Your task to perform on an android device: Go to wifi settings Image 0: 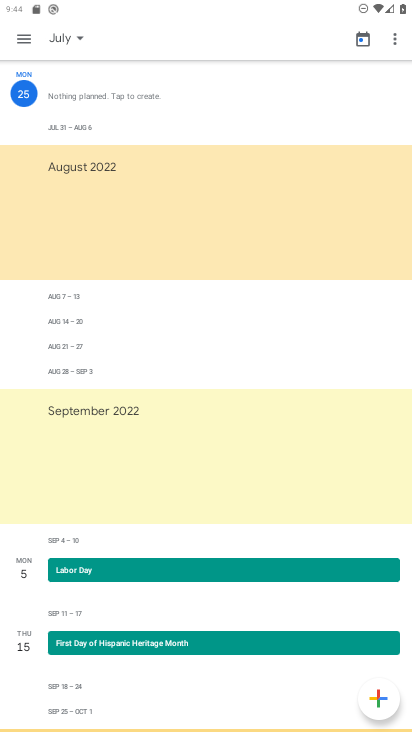
Step 0: press back button
Your task to perform on an android device: Go to wifi settings Image 1: 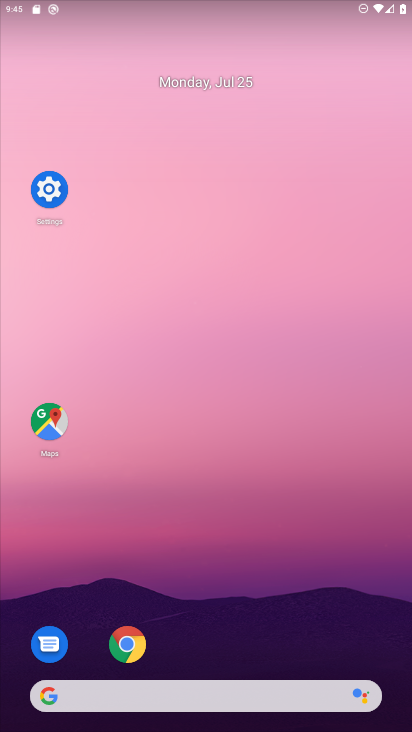
Step 1: click (52, 183)
Your task to perform on an android device: Go to wifi settings Image 2: 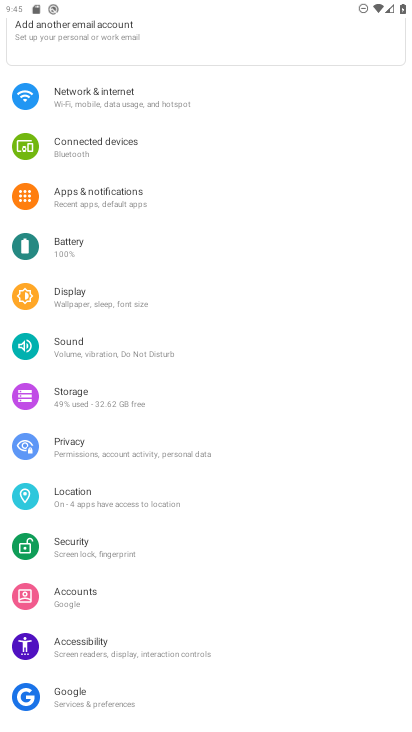
Step 2: click (140, 197)
Your task to perform on an android device: Go to wifi settings Image 3: 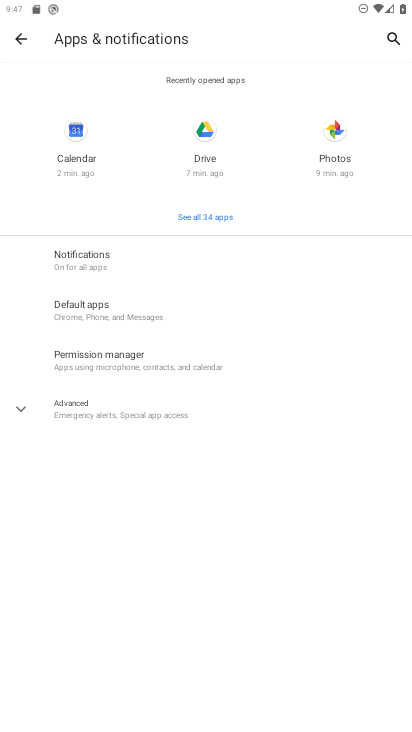
Step 3: press back button
Your task to perform on an android device: Go to wifi settings Image 4: 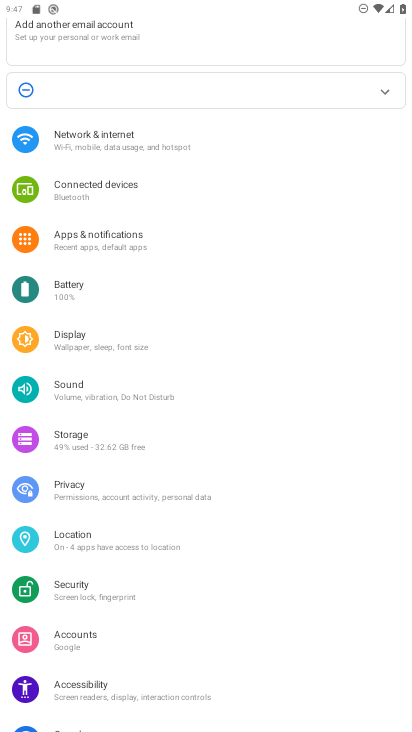
Step 4: click (125, 155)
Your task to perform on an android device: Go to wifi settings Image 5: 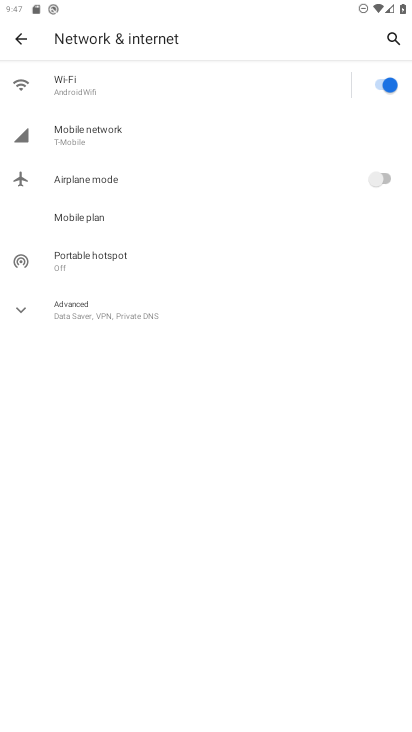
Step 5: click (103, 83)
Your task to perform on an android device: Go to wifi settings Image 6: 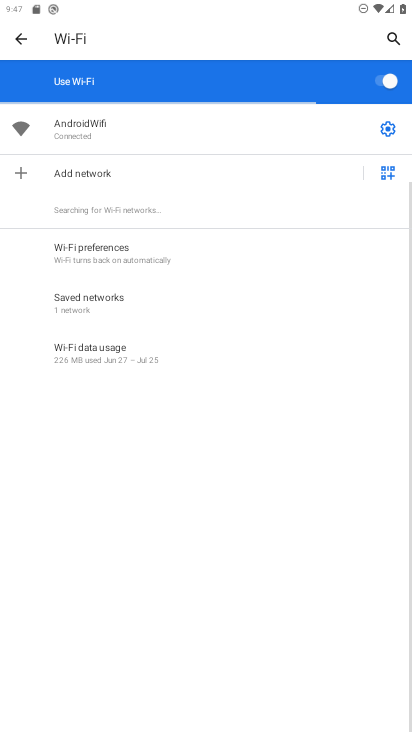
Step 6: click (387, 123)
Your task to perform on an android device: Go to wifi settings Image 7: 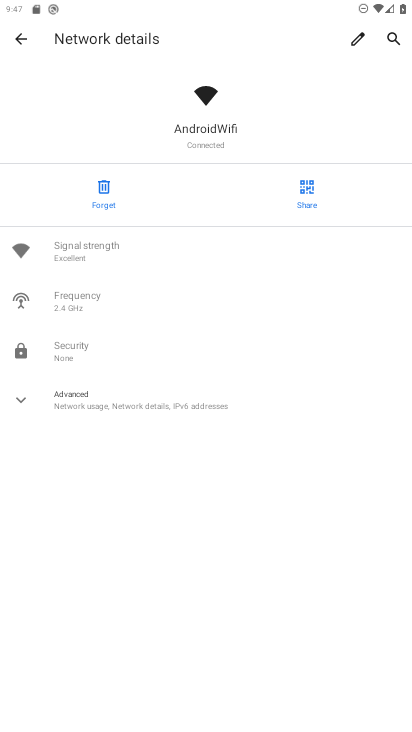
Step 7: task complete